Your task to perform on an android device: manage bookmarks in the chrome app Image 0: 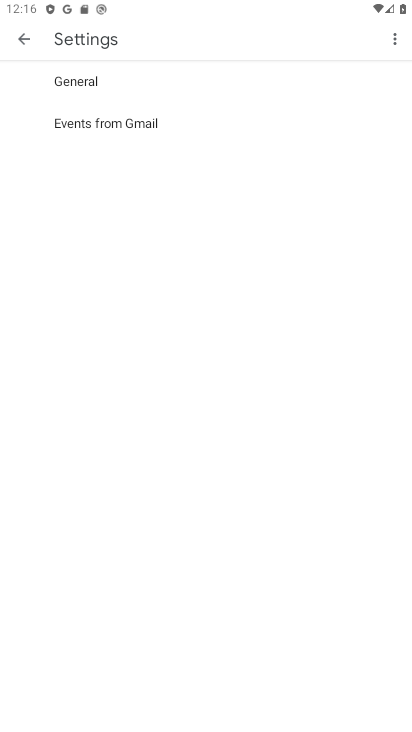
Step 0: press home button
Your task to perform on an android device: manage bookmarks in the chrome app Image 1: 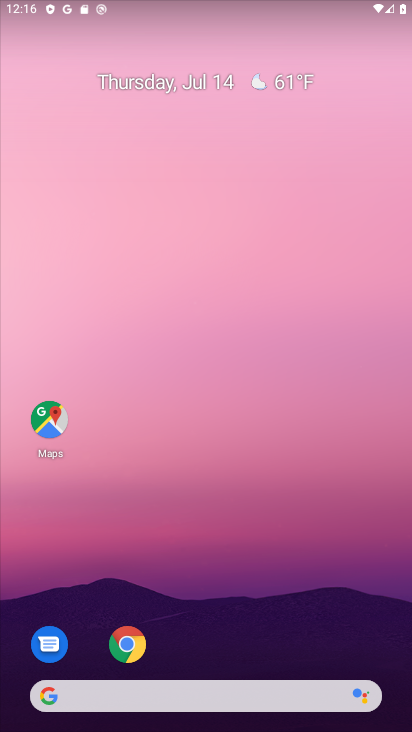
Step 1: click (145, 647)
Your task to perform on an android device: manage bookmarks in the chrome app Image 2: 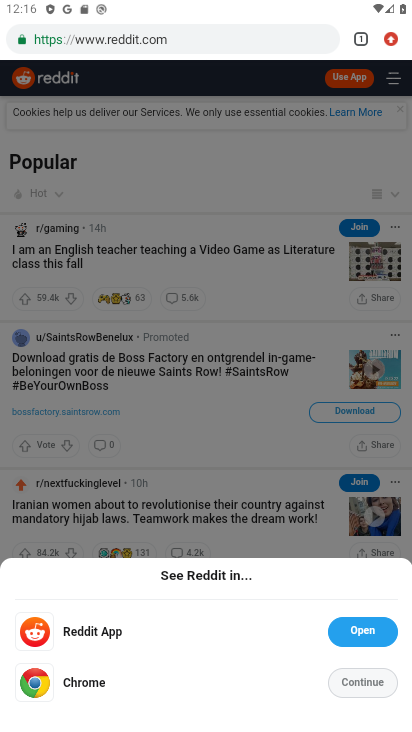
Step 2: drag from (392, 35) to (325, 209)
Your task to perform on an android device: manage bookmarks in the chrome app Image 3: 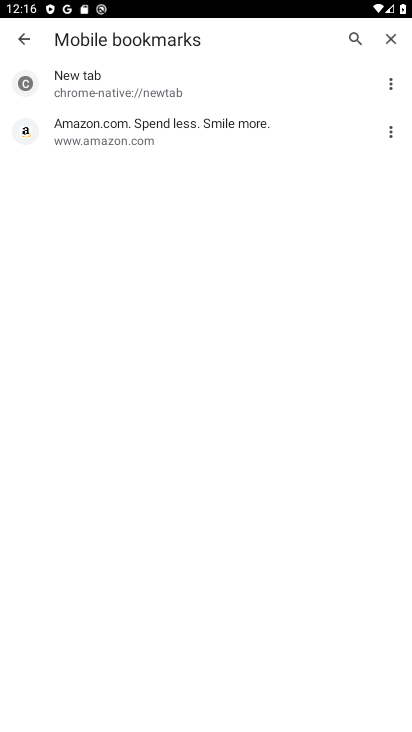
Step 3: click (201, 136)
Your task to perform on an android device: manage bookmarks in the chrome app Image 4: 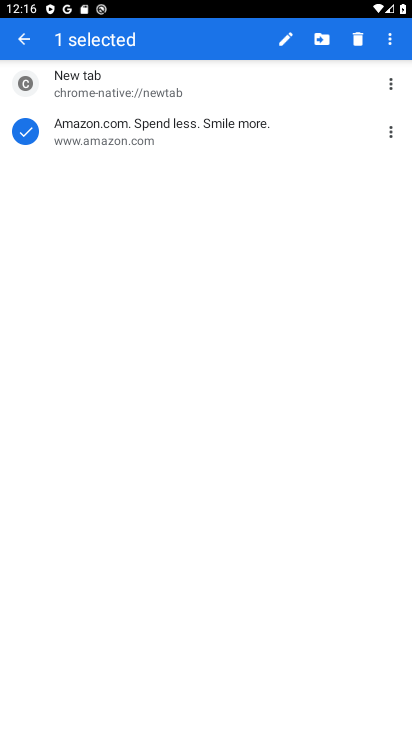
Step 4: click (185, 91)
Your task to perform on an android device: manage bookmarks in the chrome app Image 5: 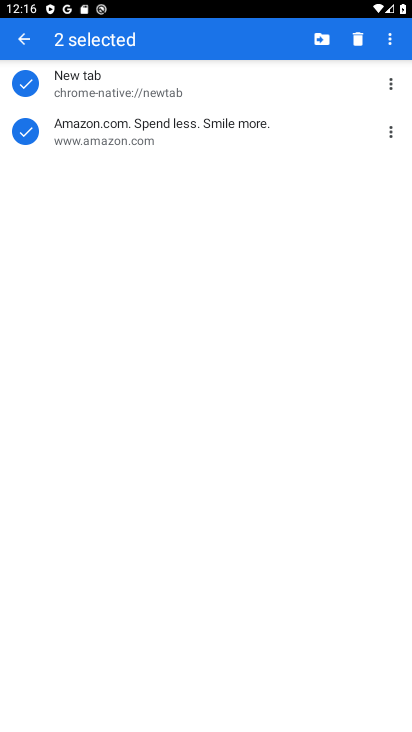
Step 5: click (313, 34)
Your task to perform on an android device: manage bookmarks in the chrome app Image 6: 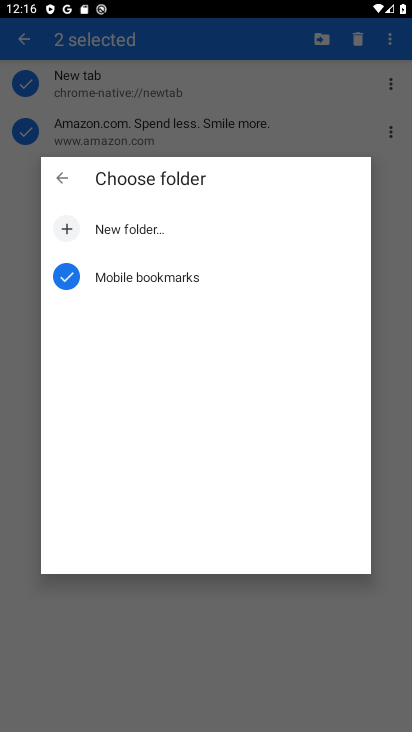
Step 6: click (181, 283)
Your task to perform on an android device: manage bookmarks in the chrome app Image 7: 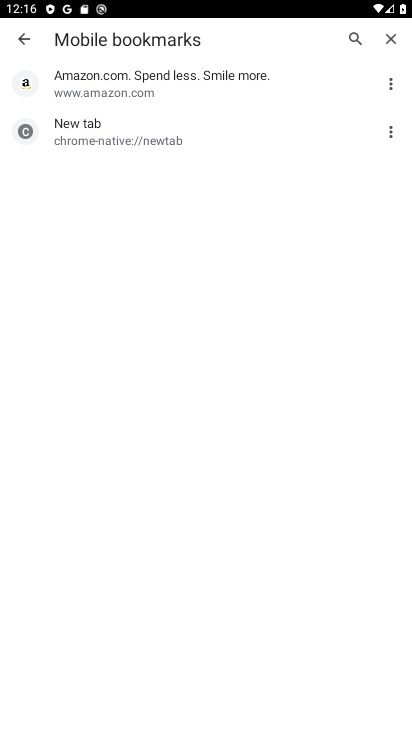
Step 7: task complete